Your task to perform on an android device: Show me productivity apps on the Play Store Image 0: 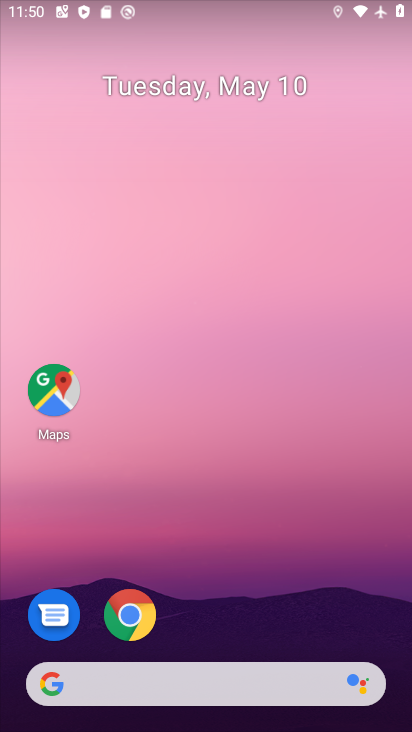
Step 0: drag from (220, 466) to (191, 0)
Your task to perform on an android device: Show me productivity apps on the Play Store Image 1: 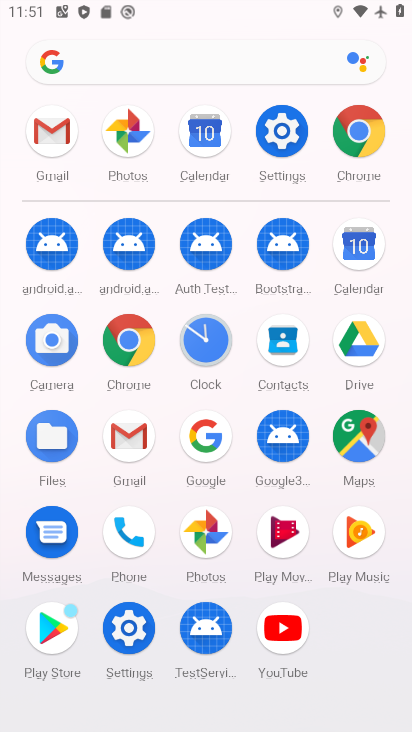
Step 1: drag from (11, 532) to (21, 212)
Your task to perform on an android device: Show me productivity apps on the Play Store Image 2: 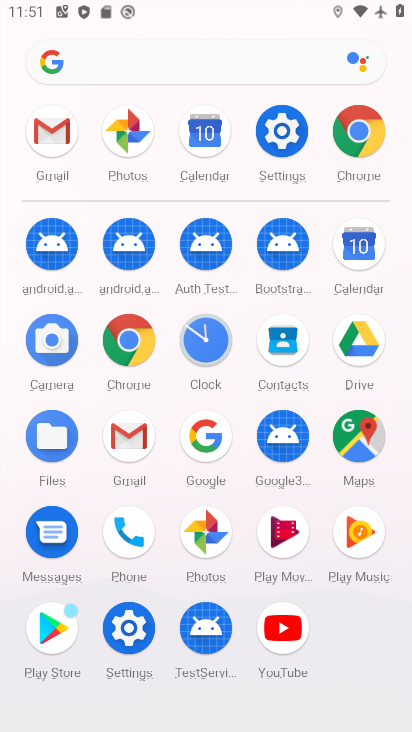
Step 2: click (54, 618)
Your task to perform on an android device: Show me productivity apps on the Play Store Image 3: 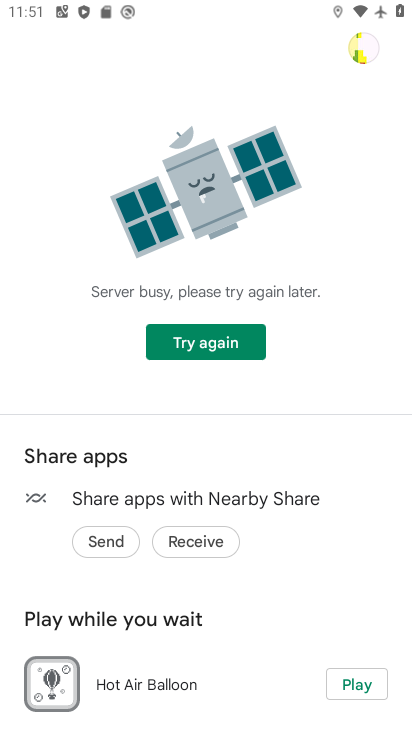
Step 3: click (190, 342)
Your task to perform on an android device: Show me productivity apps on the Play Store Image 4: 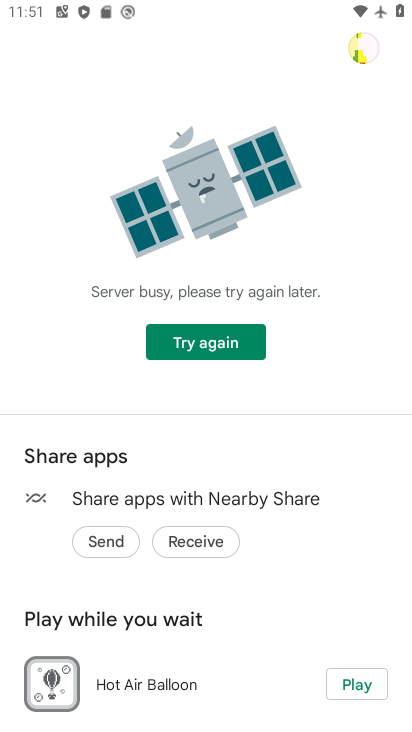
Step 4: task complete